Your task to perform on an android device: check data usage Image 0: 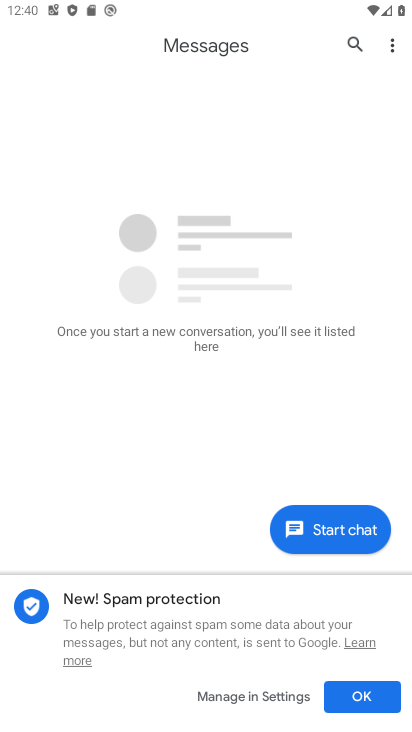
Step 0: press home button
Your task to perform on an android device: check data usage Image 1: 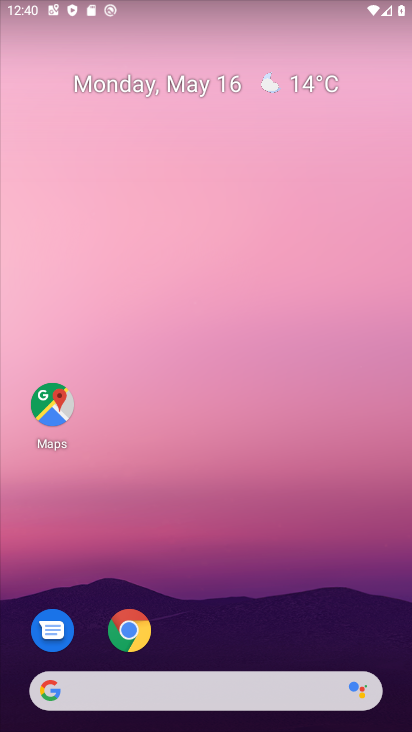
Step 1: drag from (398, 6) to (294, 540)
Your task to perform on an android device: check data usage Image 2: 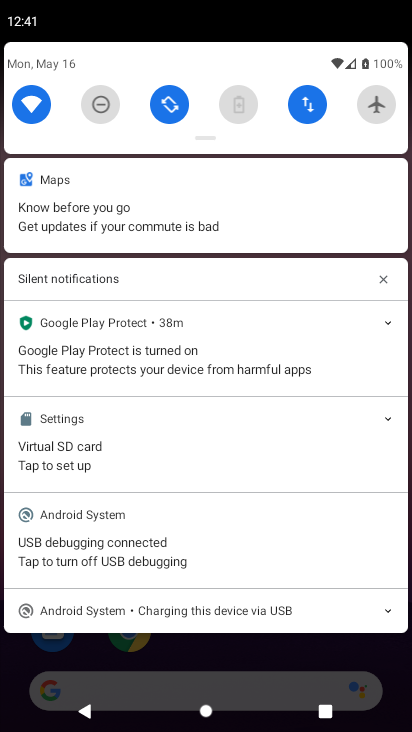
Step 2: click (301, 113)
Your task to perform on an android device: check data usage Image 3: 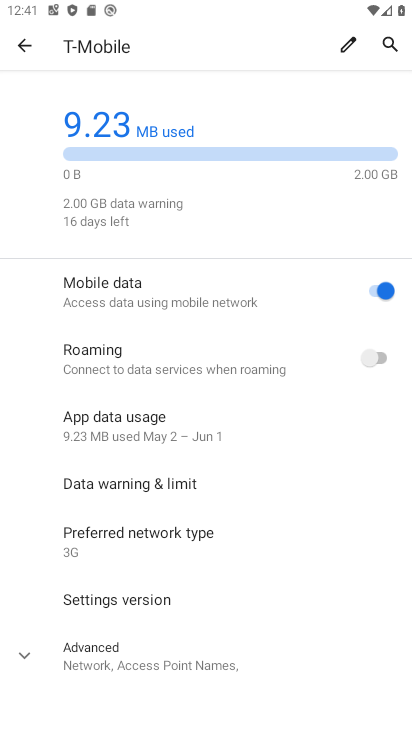
Step 3: task complete